Your task to perform on an android device: see creations saved in the google photos Image 0: 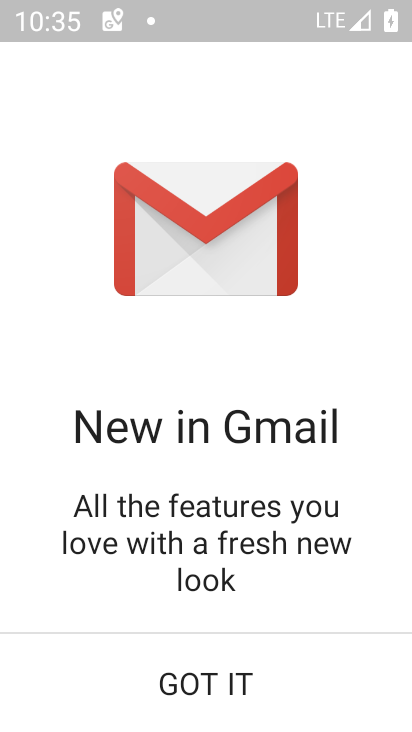
Step 0: press home button
Your task to perform on an android device: see creations saved in the google photos Image 1: 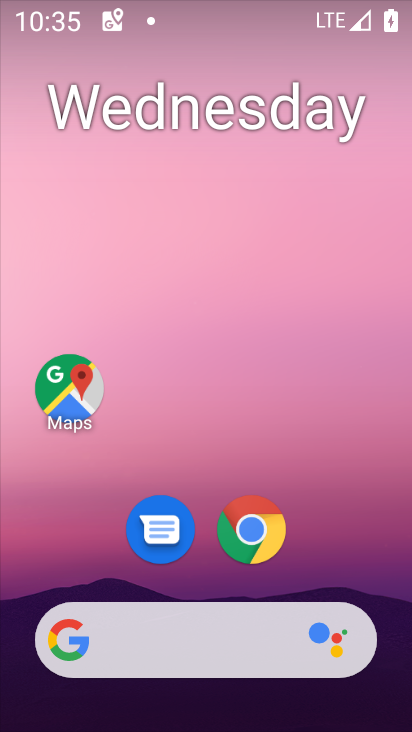
Step 1: drag from (385, 611) to (345, 27)
Your task to perform on an android device: see creations saved in the google photos Image 2: 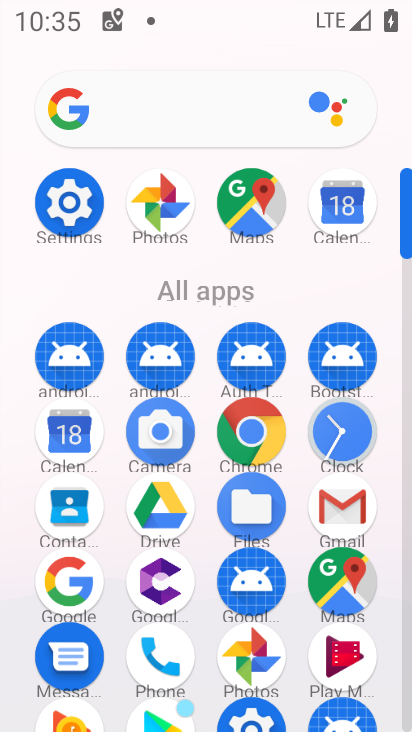
Step 2: click (404, 690)
Your task to perform on an android device: see creations saved in the google photos Image 3: 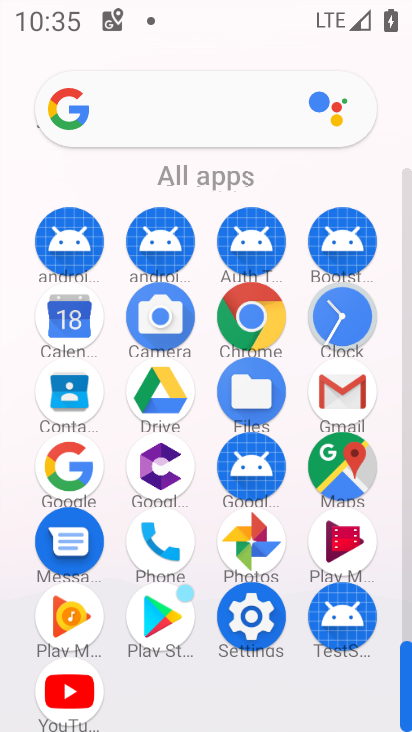
Step 3: click (253, 541)
Your task to perform on an android device: see creations saved in the google photos Image 4: 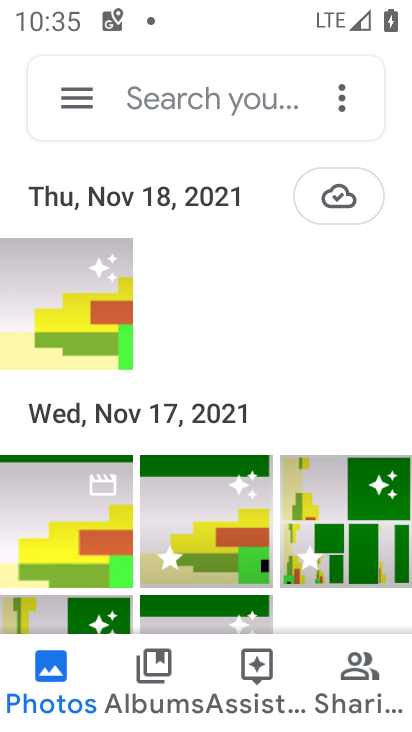
Step 4: task complete